Your task to perform on an android device: Open Maps and search for coffee Image 0: 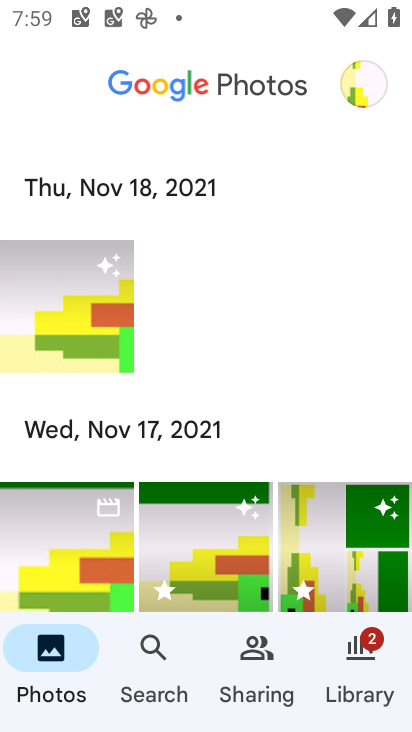
Step 0: press home button
Your task to perform on an android device: Open Maps and search for coffee Image 1: 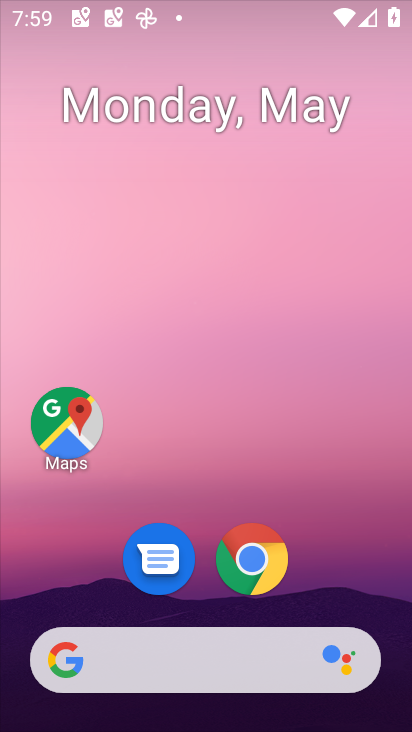
Step 1: drag from (396, 664) to (316, 126)
Your task to perform on an android device: Open Maps and search for coffee Image 2: 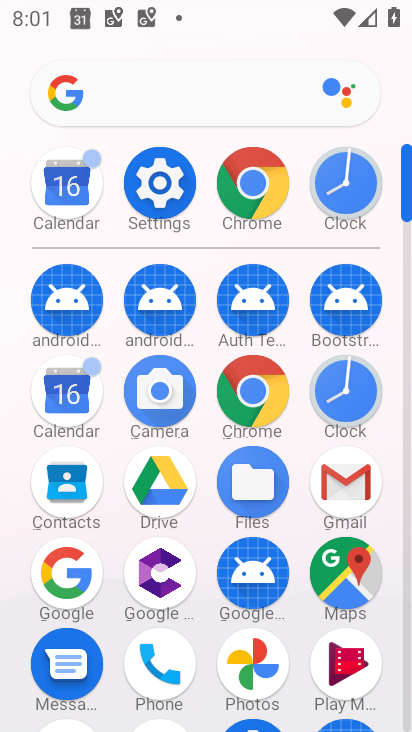
Step 2: click (360, 583)
Your task to perform on an android device: Open Maps and search for coffee Image 3: 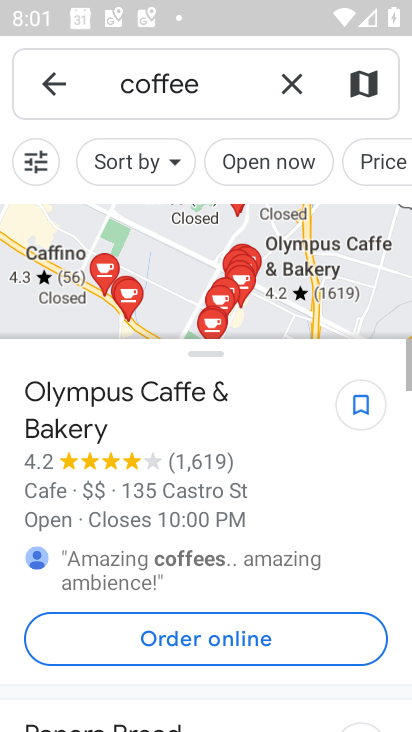
Step 3: task complete